Your task to perform on an android device: Search for vegetarian restaurants on Maps Image 0: 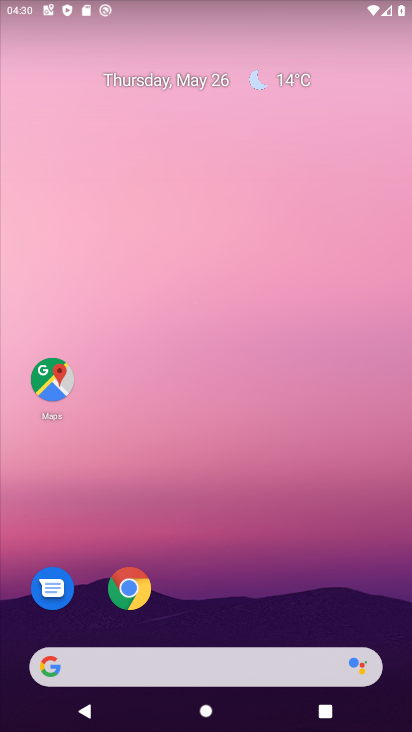
Step 0: click (193, 671)
Your task to perform on an android device: Search for vegetarian restaurants on Maps Image 1: 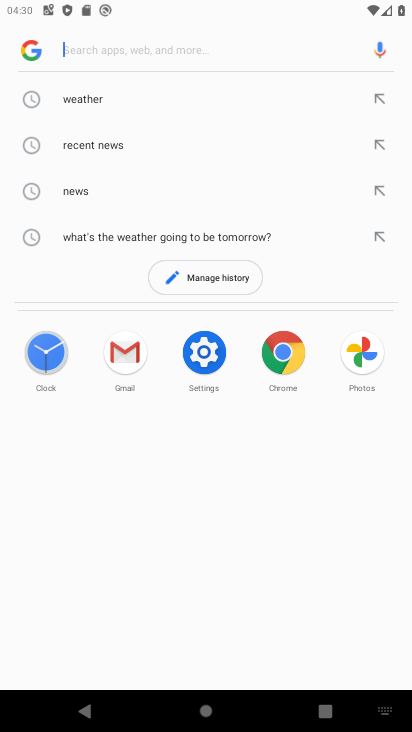
Step 1: press home button
Your task to perform on an android device: Search for vegetarian restaurants on Maps Image 2: 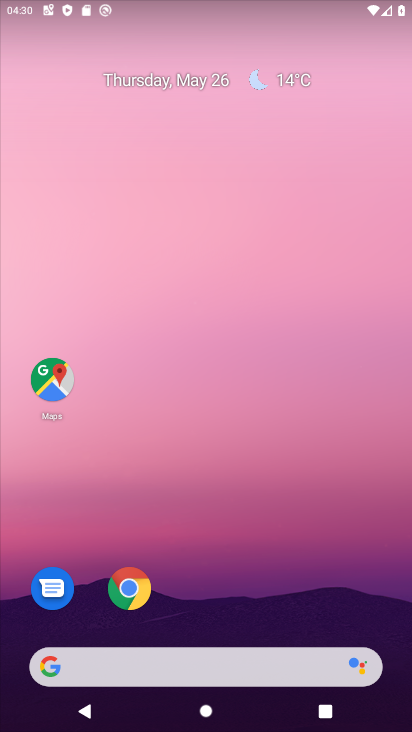
Step 2: click (55, 399)
Your task to perform on an android device: Search for vegetarian restaurants on Maps Image 3: 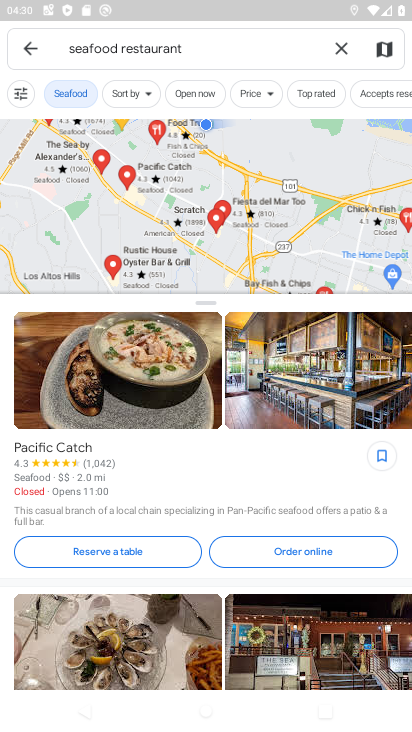
Step 3: click (336, 44)
Your task to perform on an android device: Search for vegetarian restaurants on Maps Image 4: 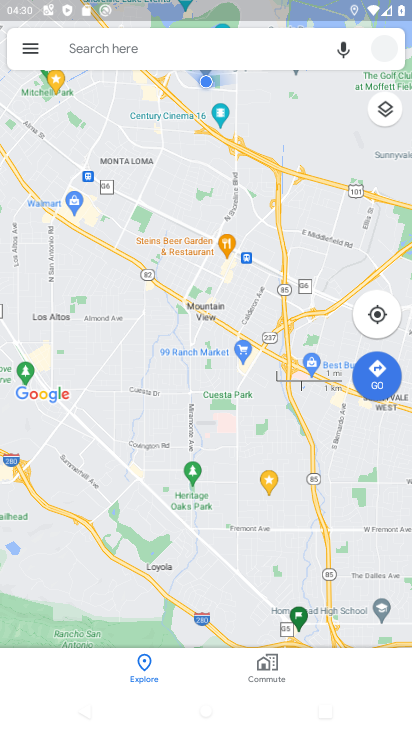
Step 4: click (276, 47)
Your task to perform on an android device: Search for vegetarian restaurants on Maps Image 5: 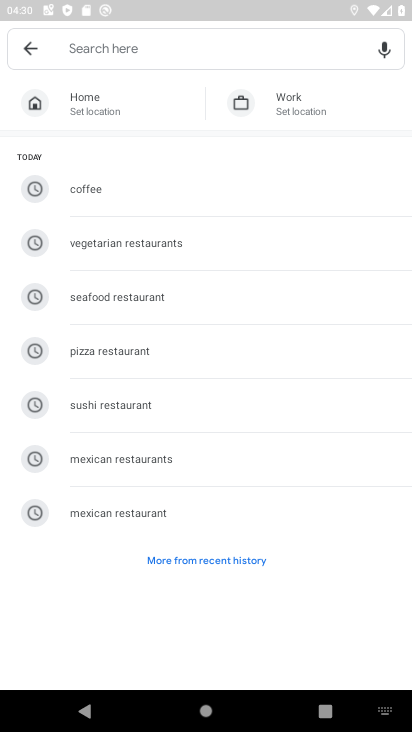
Step 5: click (228, 240)
Your task to perform on an android device: Search for vegetarian restaurants on Maps Image 6: 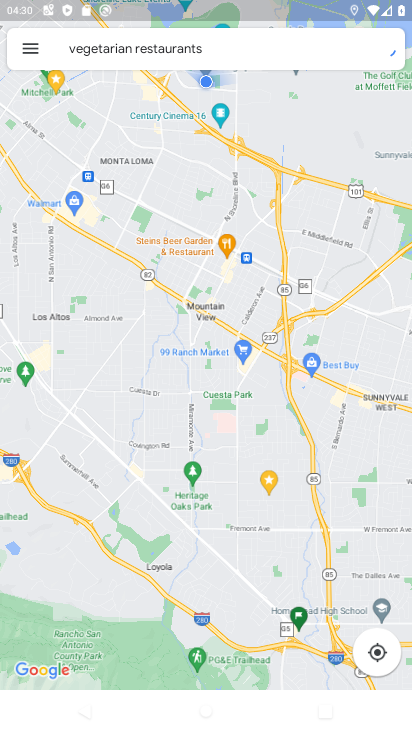
Step 6: task complete